Your task to perform on an android device: turn off notifications in google photos Image 0: 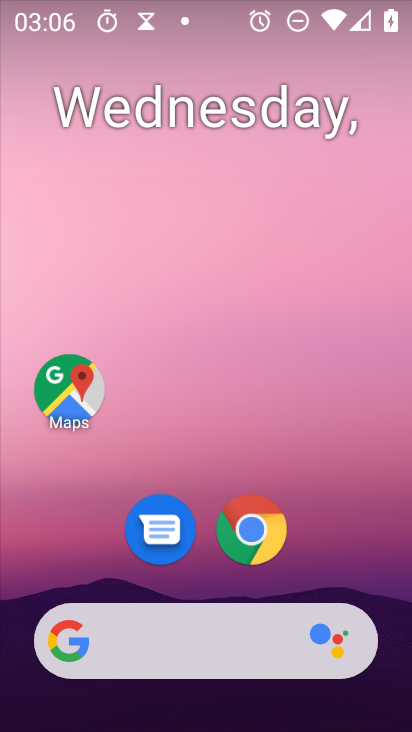
Step 0: drag from (268, 602) to (273, 5)
Your task to perform on an android device: turn off notifications in google photos Image 1: 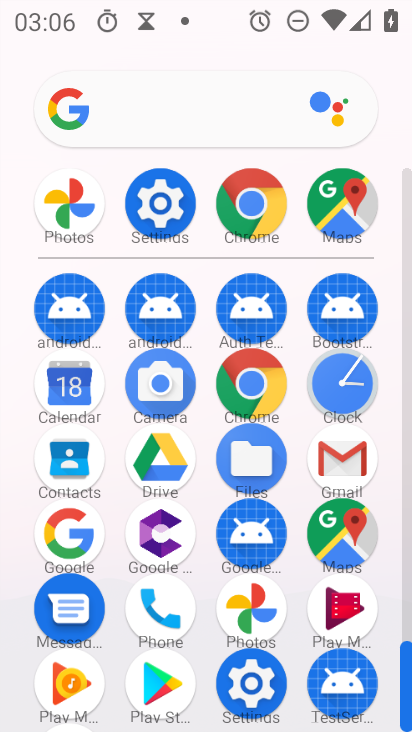
Step 1: click (259, 595)
Your task to perform on an android device: turn off notifications in google photos Image 2: 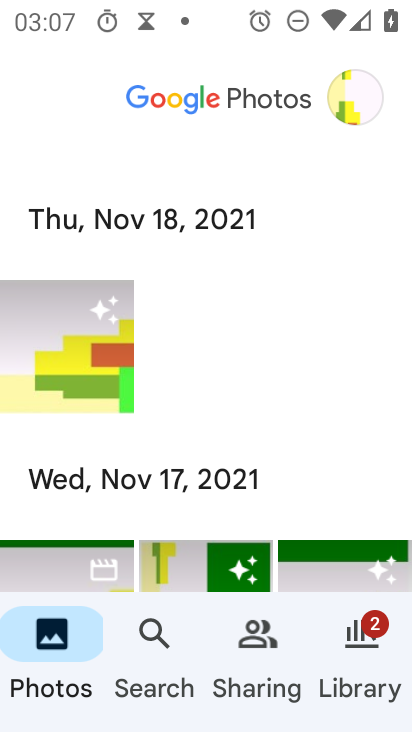
Step 2: click (366, 89)
Your task to perform on an android device: turn off notifications in google photos Image 3: 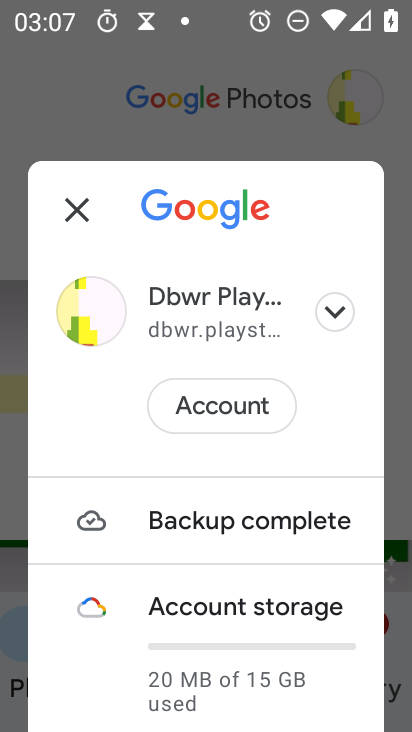
Step 3: drag from (290, 585) to (275, 157)
Your task to perform on an android device: turn off notifications in google photos Image 4: 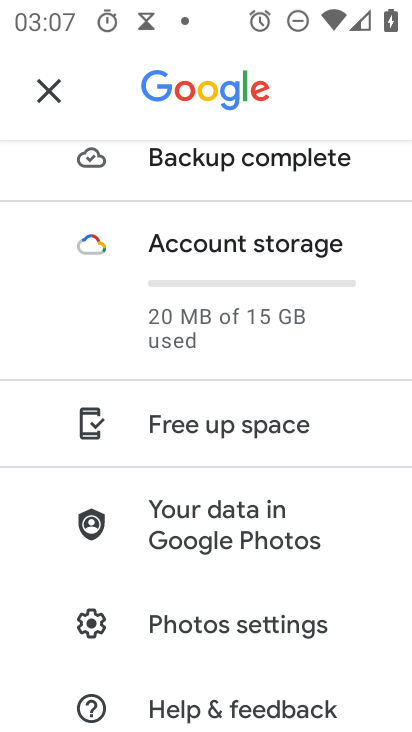
Step 4: click (252, 619)
Your task to perform on an android device: turn off notifications in google photos Image 5: 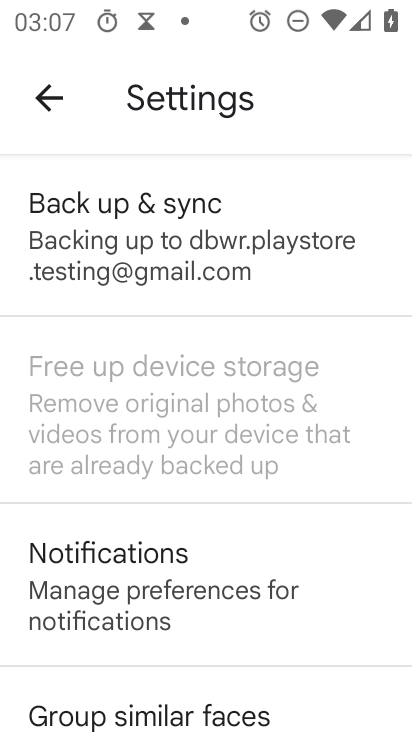
Step 5: click (137, 603)
Your task to perform on an android device: turn off notifications in google photos Image 6: 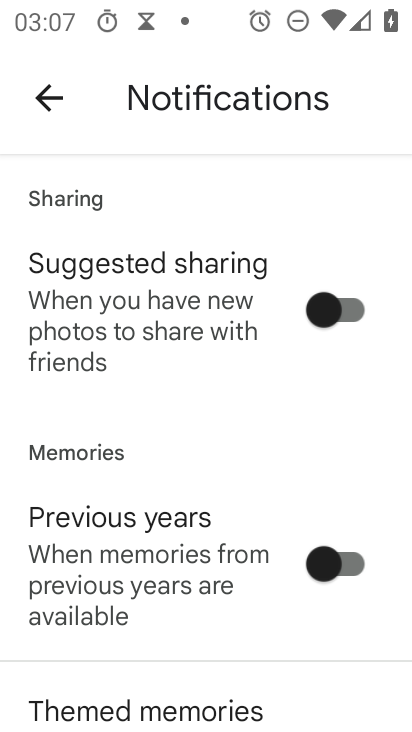
Step 6: drag from (227, 680) to (217, 126)
Your task to perform on an android device: turn off notifications in google photos Image 7: 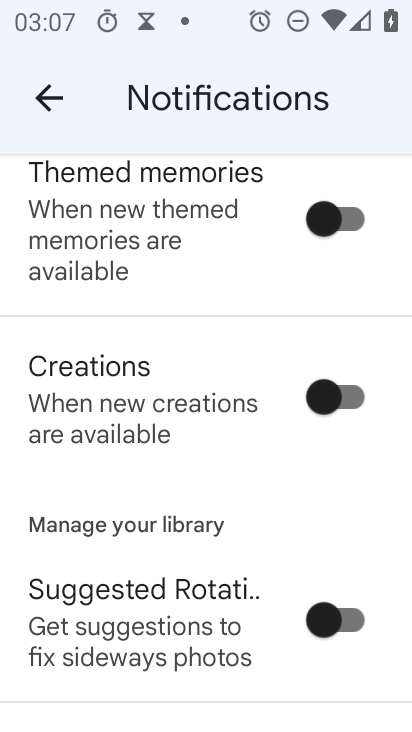
Step 7: drag from (236, 662) to (200, 101)
Your task to perform on an android device: turn off notifications in google photos Image 8: 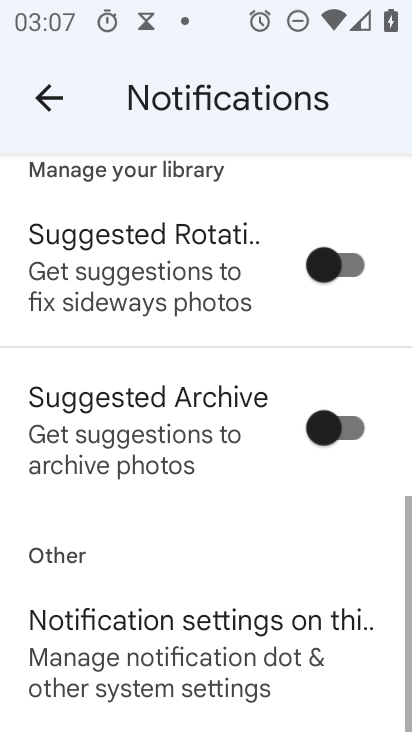
Step 8: click (199, 644)
Your task to perform on an android device: turn off notifications in google photos Image 9: 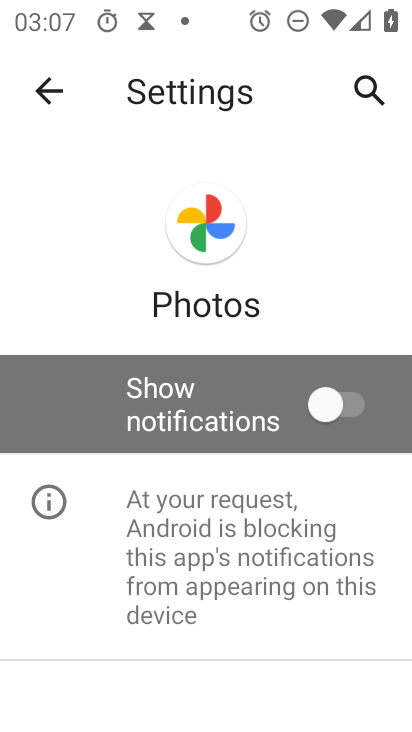
Step 9: task complete